Your task to perform on an android device: Open calendar and show me the second week of next month Image 0: 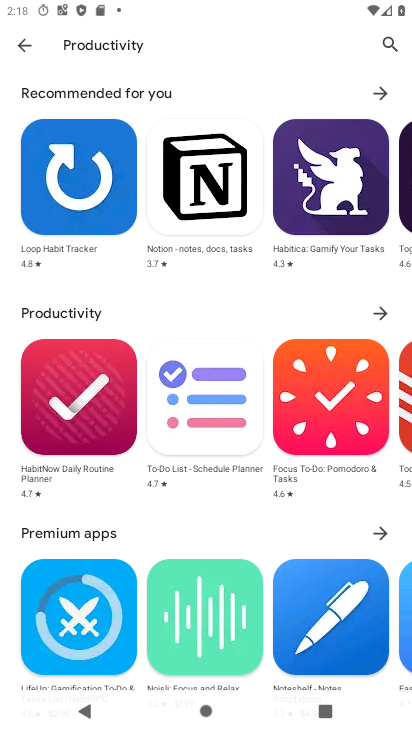
Step 0: press home button
Your task to perform on an android device: Open calendar and show me the second week of next month Image 1: 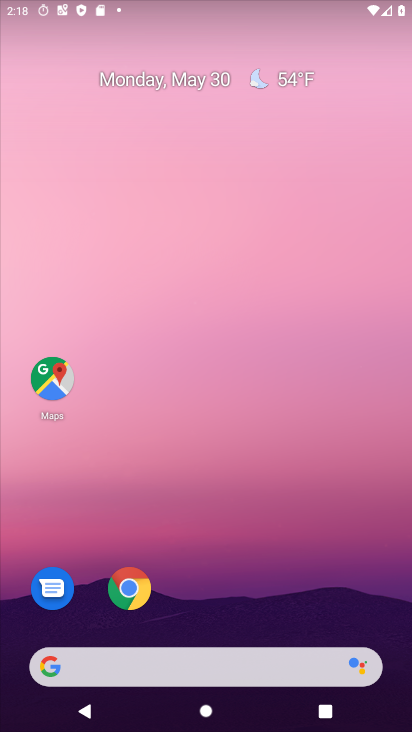
Step 1: drag from (220, 587) to (243, 362)
Your task to perform on an android device: Open calendar and show me the second week of next month Image 2: 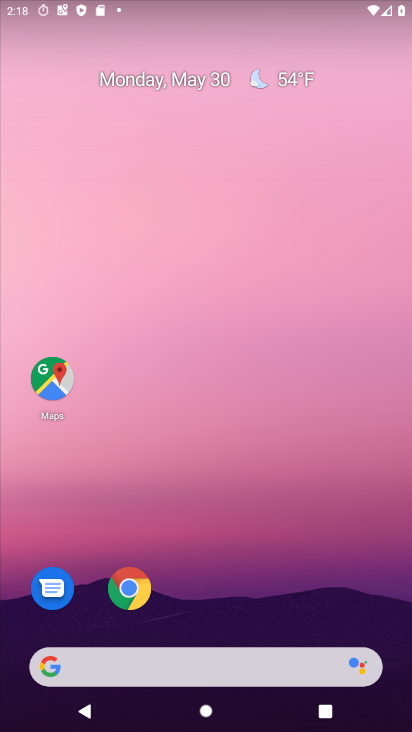
Step 2: drag from (231, 599) to (265, 72)
Your task to perform on an android device: Open calendar and show me the second week of next month Image 3: 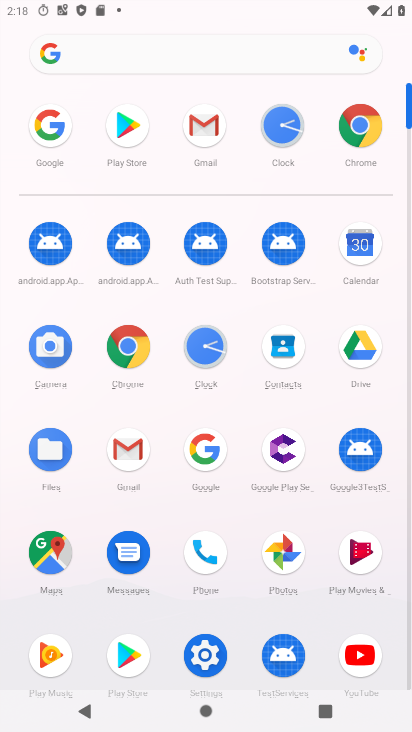
Step 3: click (360, 244)
Your task to perform on an android device: Open calendar and show me the second week of next month Image 4: 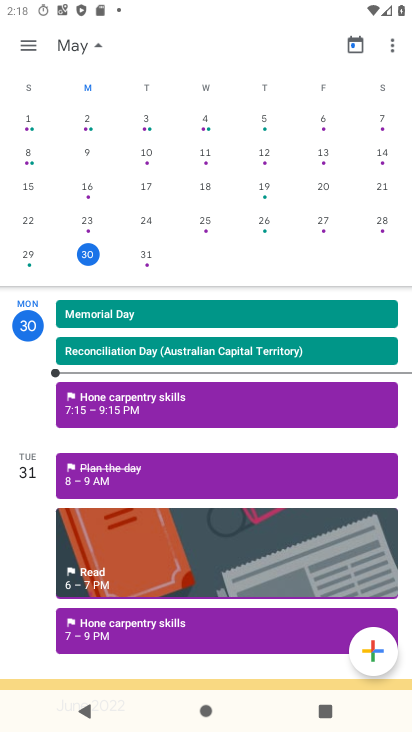
Step 4: drag from (393, 255) to (11, 234)
Your task to perform on an android device: Open calendar and show me the second week of next month Image 5: 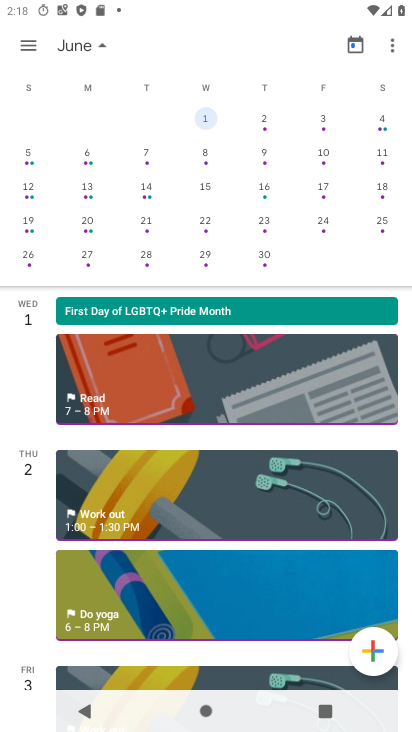
Step 5: click (263, 151)
Your task to perform on an android device: Open calendar and show me the second week of next month Image 6: 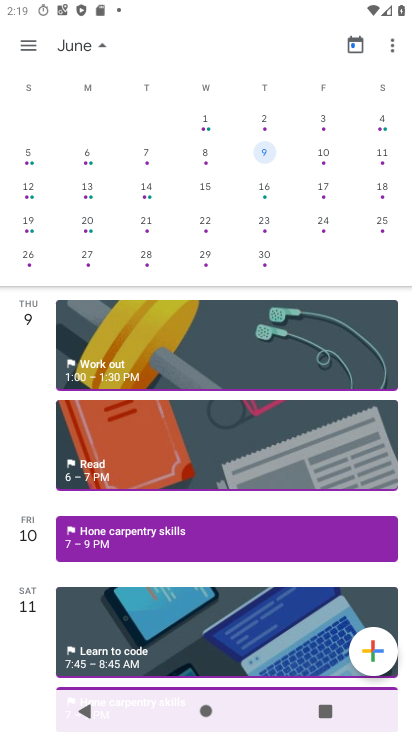
Step 6: task complete